Your task to perform on an android device: manage bookmarks in the chrome app Image 0: 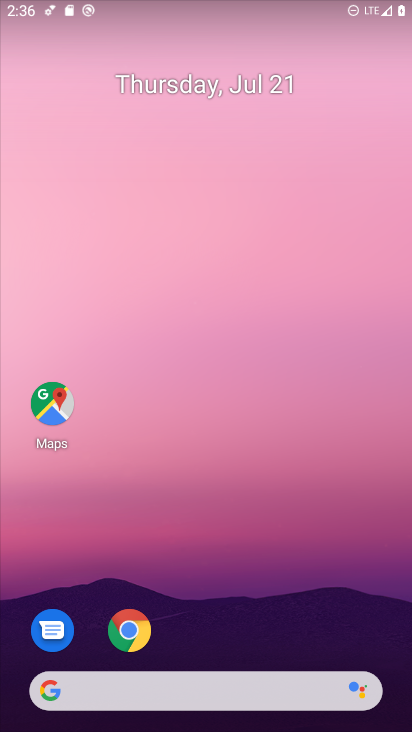
Step 0: click (139, 631)
Your task to perform on an android device: manage bookmarks in the chrome app Image 1: 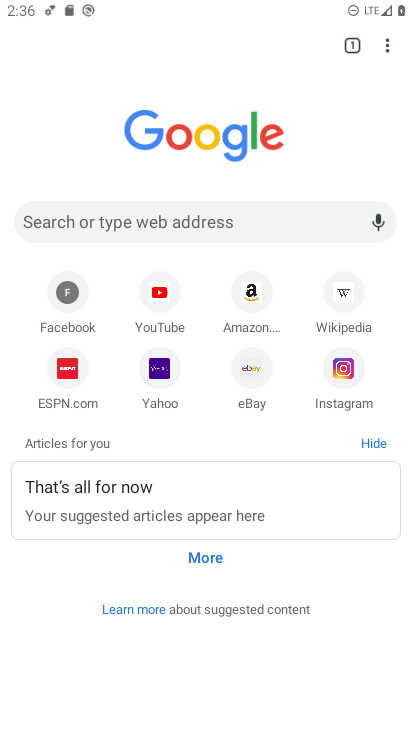
Step 1: click (385, 42)
Your task to perform on an android device: manage bookmarks in the chrome app Image 2: 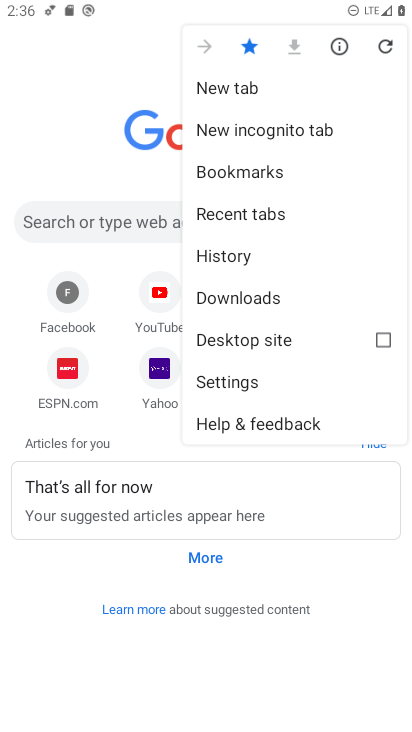
Step 2: click (241, 171)
Your task to perform on an android device: manage bookmarks in the chrome app Image 3: 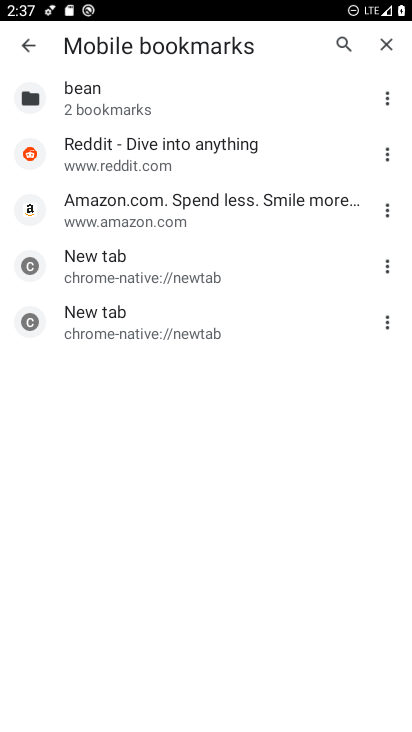
Step 3: click (182, 259)
Your task to perform on an android device: manage bookmarks in the chrome app Image 4: 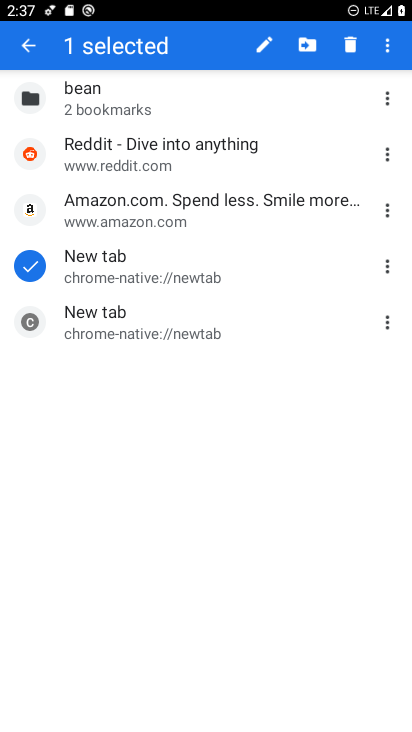
Step 4: click (115, 308)
Your task to perform on an android device: manage bookmarks in the chrome app Image 5: 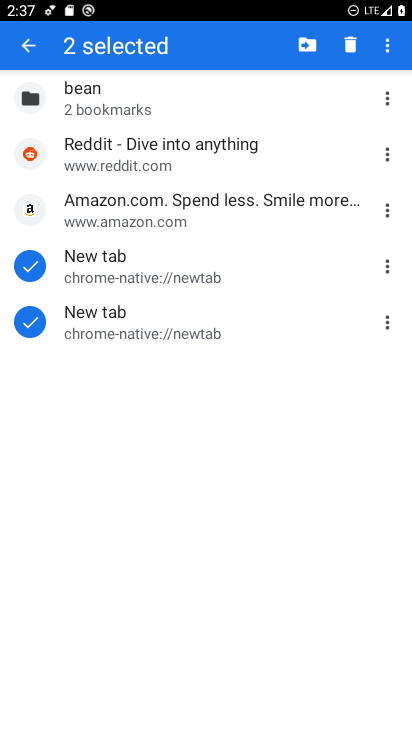
Step 5: click (304, 48)
Your task to perform on an android device: manage bookmarks in the chrome app Image 6: 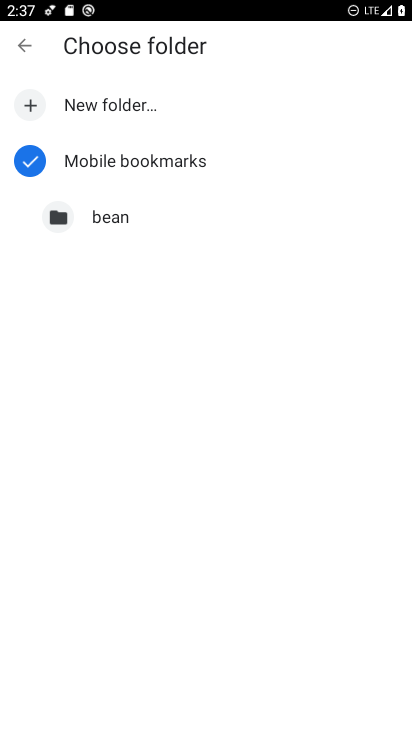
Step 6: click (105, 217)
Your task to perform on an android device: manage bookmarks in the chrome app Image 7: 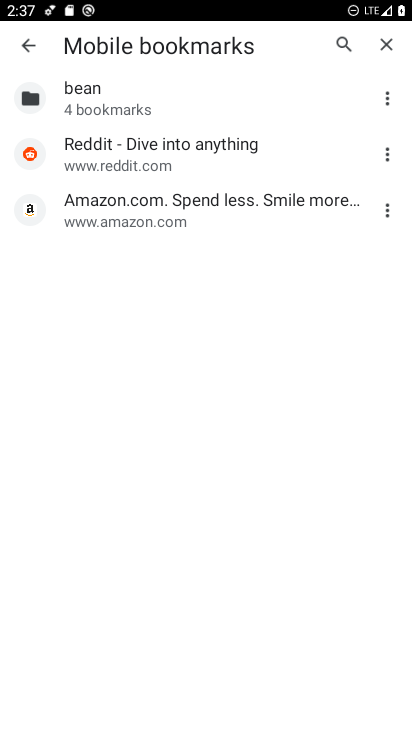
Step 7: task complete